Your task to perform on an android device: open the mobile data screen to see how much data has been used Image 0: 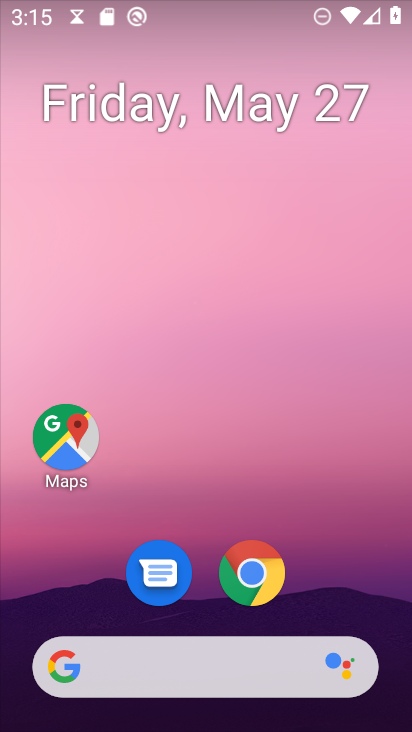
Step 0: drag from (317, 633) to (280, 151)
Your task to perform on an android device: open the mobile data screen to see how much data has been used Image 1: 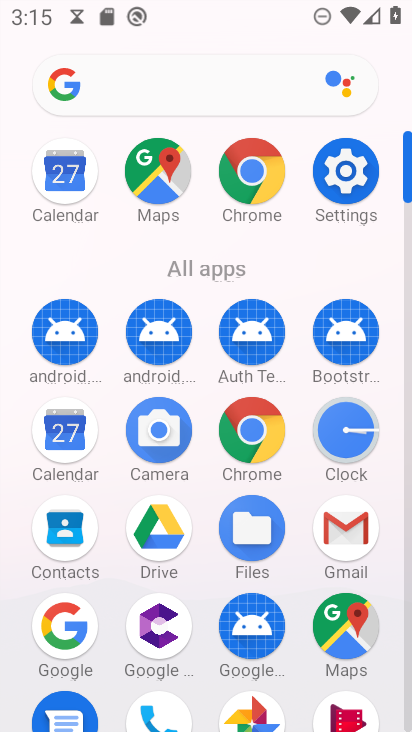
Step 1: click (345, 169)
Your task to perform on an android device: open the mobile data screen to see how much data has been used Image 2: 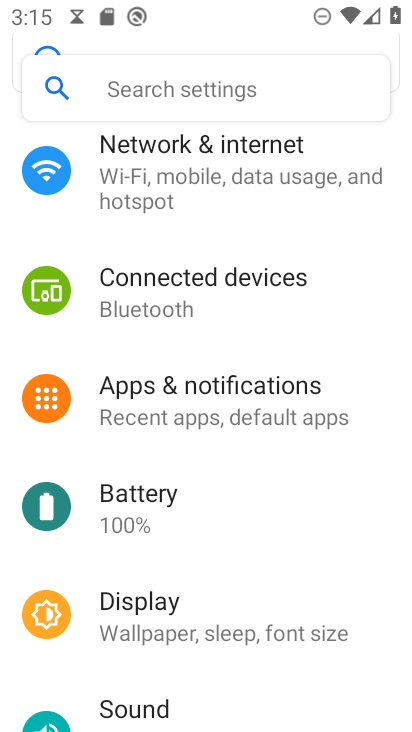
Step 2: drag from (221, 331) to (172, 629)
Your task to perform on an android device: open the mobile data screen to see how much data has been used Image 3: 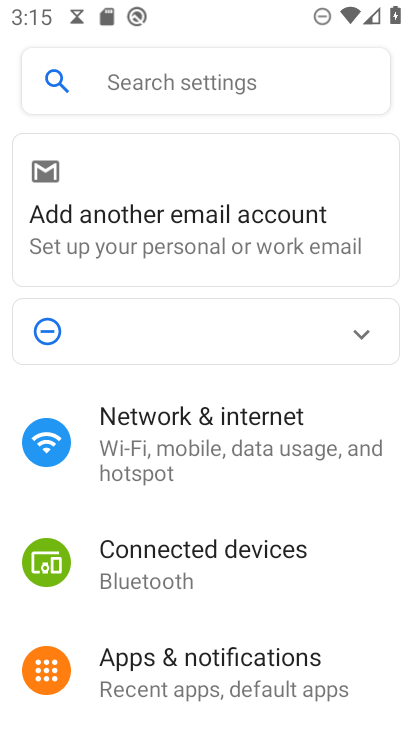
Step 3: click (149, 426)
Your task to perform on an android device: open the mobile data screen to see how much data has been used Image 4: 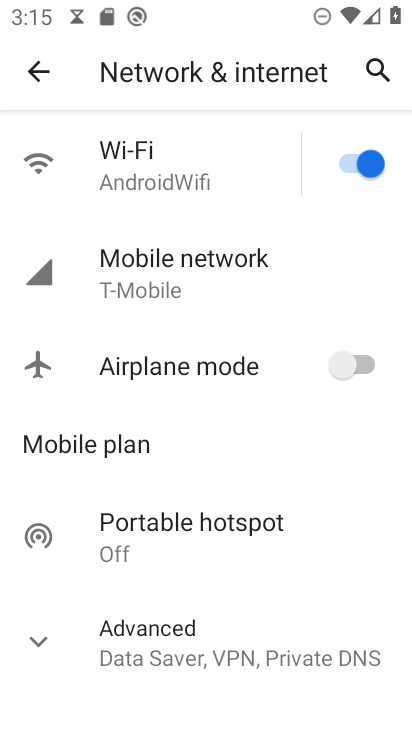
Step 4: click (194, 269)
Your task to perform on an android device: open the mobile data screen to see how much data has been used Image 5: 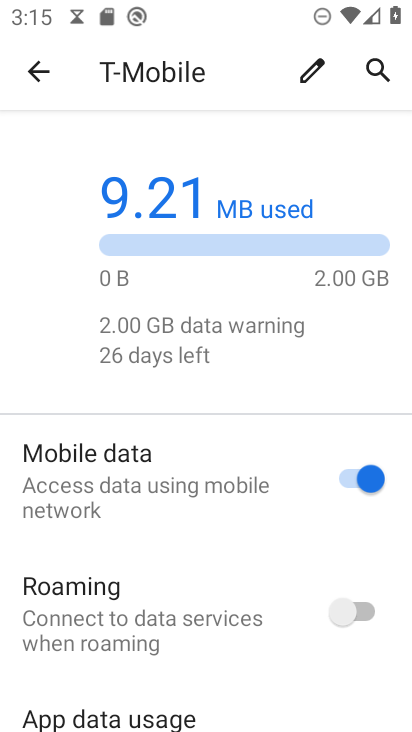
Step 5: drag from (156, 622) to (155, 330)
Your task to perform on an android device: open the mobile data screen to see how much data has been used Image 6: 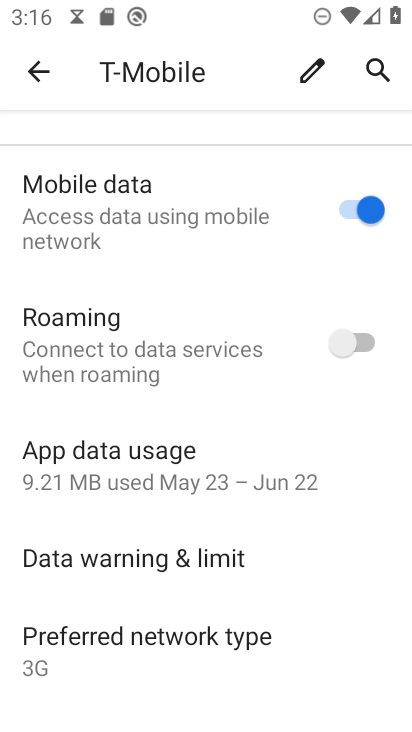
Step 6: click (142, 476)
Your task to perform on an android device: open the mobile data screen to see how much data has been used Image 7: 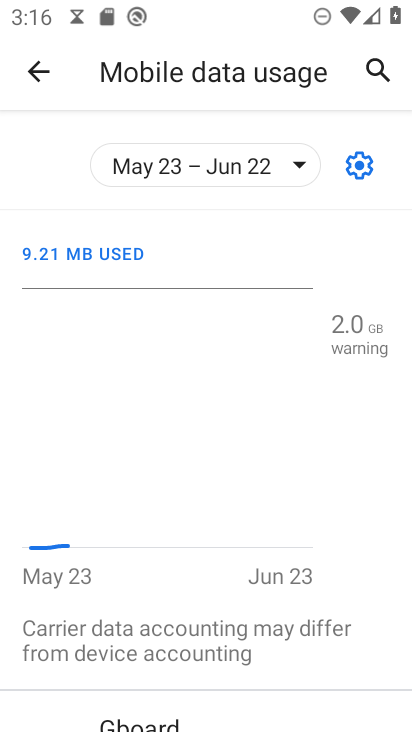
Step 7: task complete